Your task to perform on an android device: turn on the 24-hour format for clock Image 0: 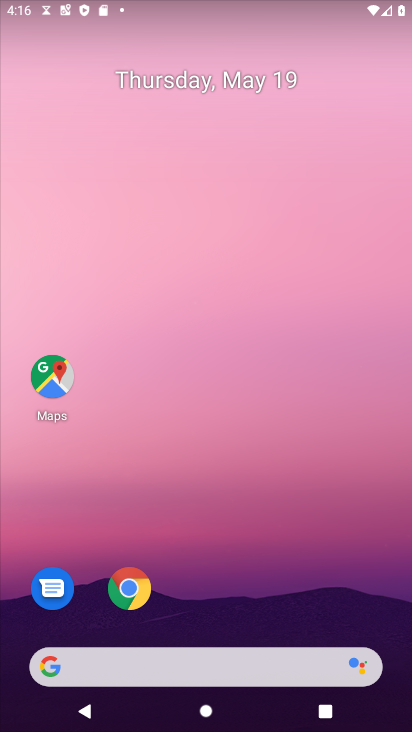
Step 0: drag from (223, 612) to (268, 100)
Your task to perform on an android device: turn on the 24-hour format for clock Image 1: 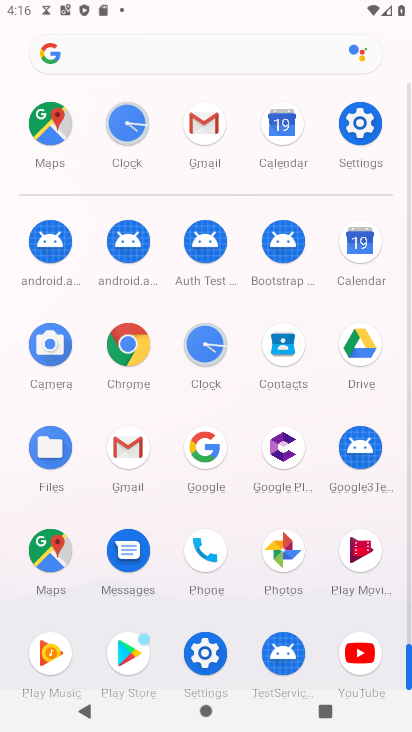
Step 1: click (206, 663)
Your task to perform on an android device: turn on the 24-hour format for clock Image 2: 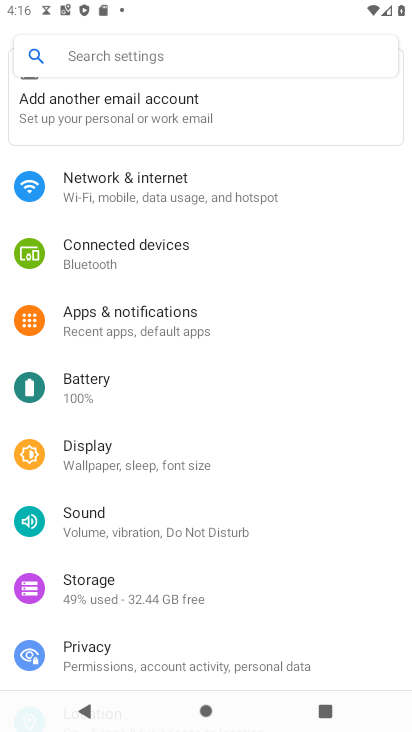
Step 2: drag from (174, 589) to (185, 235)
Your task to perform on an android device: turn on the 24-hour format for clock Image 3: 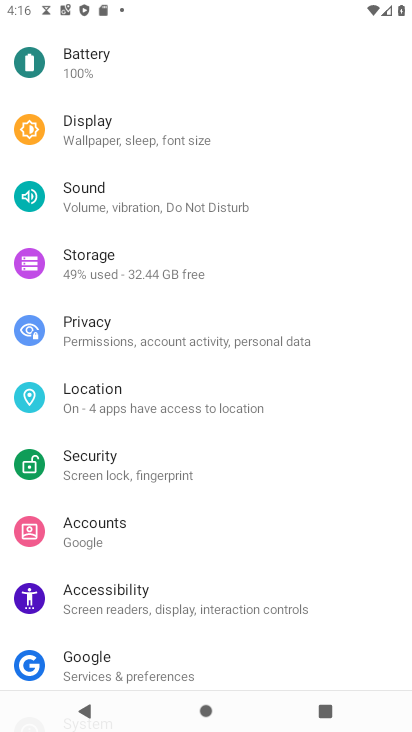
Step 3: drag from (132, 628) to (154, 278)
Your task to perform on an android device: turn on the 24-hour format for clock Image 4: 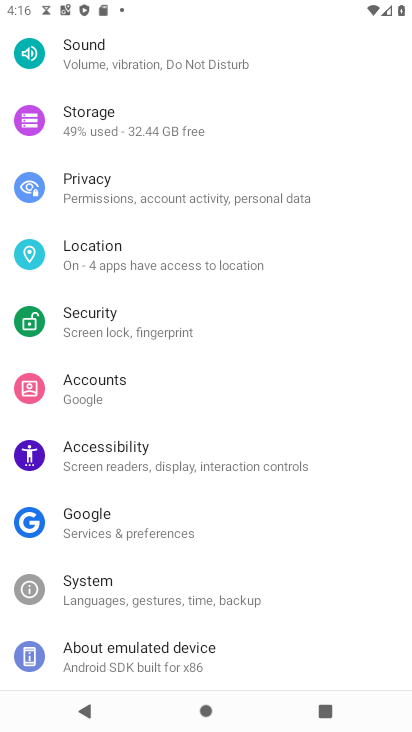
Step 4: click (151, 602)
Your task to perform on an android device: turn on the 24-hour format for clock Image 5: 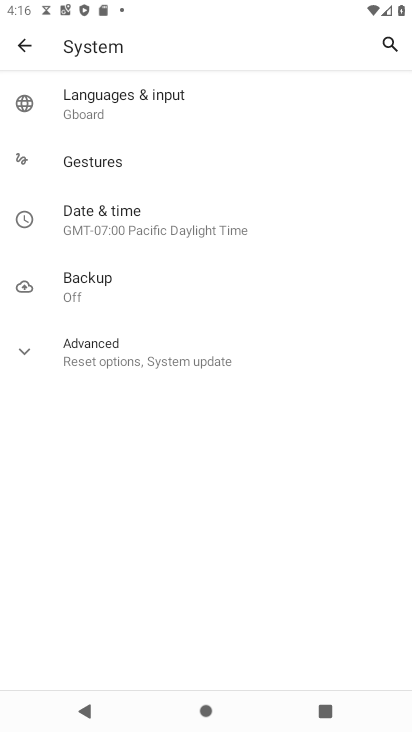
Step 5: click (131, 225)
Your task to perform on an android device: turn on the 24-hour format for clock Image 6: 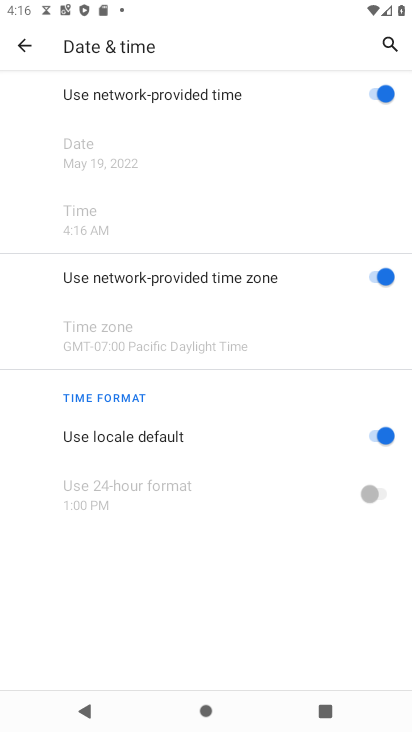
Step 6: click (349, 432)
Your task to perform on an android device: turn on the 24-hour format for clock Image 7: 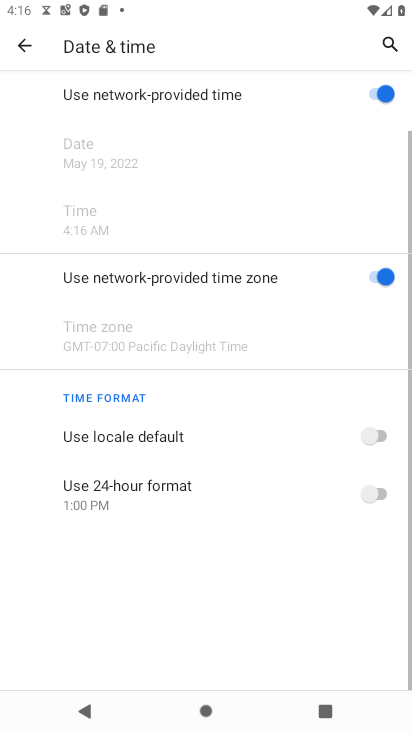
Step 7: click (387, 492)
Your task to perform on an android device: turn on the 24-hour format for clock Image 8: 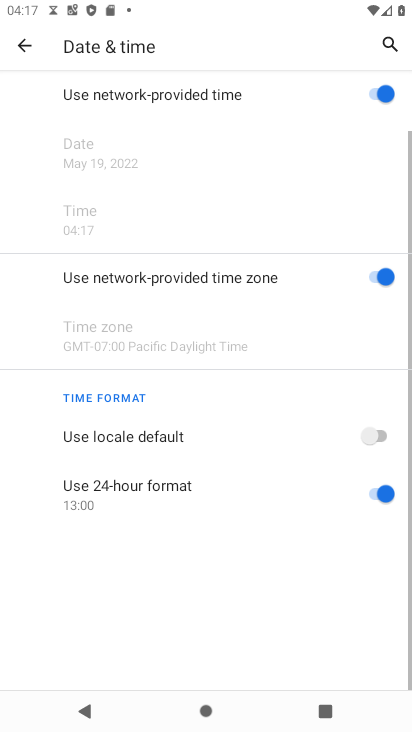
Step 8: task complete